Your task to perform on an android device: Show me productivity apps on the Play Store Image 0: 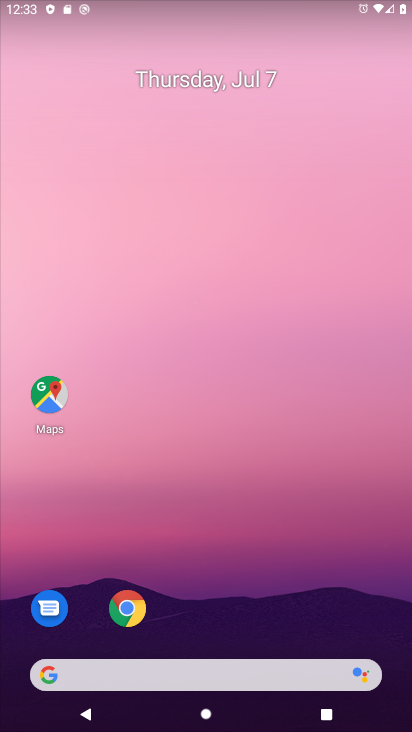
Step 0: drag from (221, 431) to (213, 35)
Your task to perform on an android device: Show me productivity apps on the Play Store Image 1: 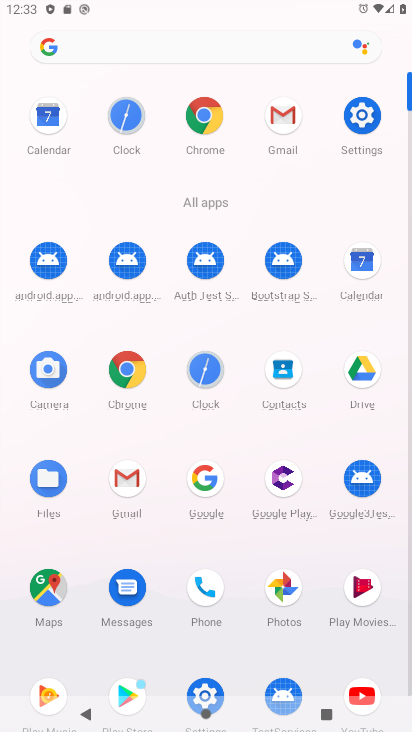
Step 1: click (133, 703)
Your task to perform on an android device: Show me productivity apps on the Play Store Image 2: 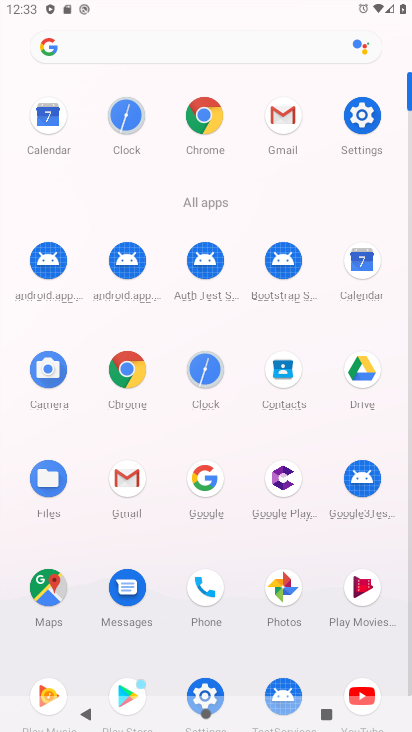
Step 2: click (125, 688)
Your task to perform on an android device: Show me productivity apps on the Play Store Image 3: 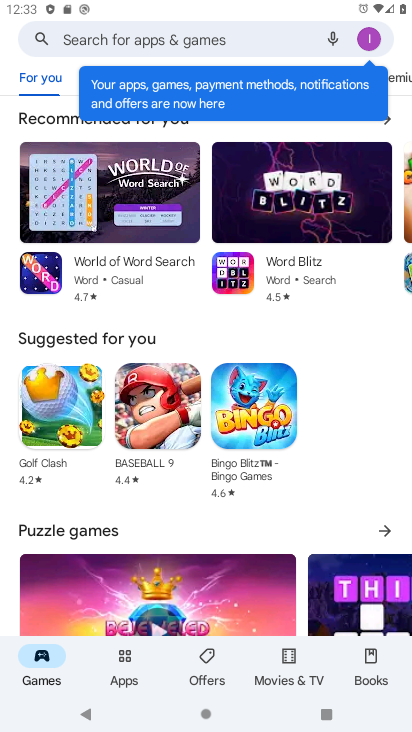
Step 3: click (120, 660)
Your task to perform on an android device: Show me productivity apps on the Play Store Image 4: 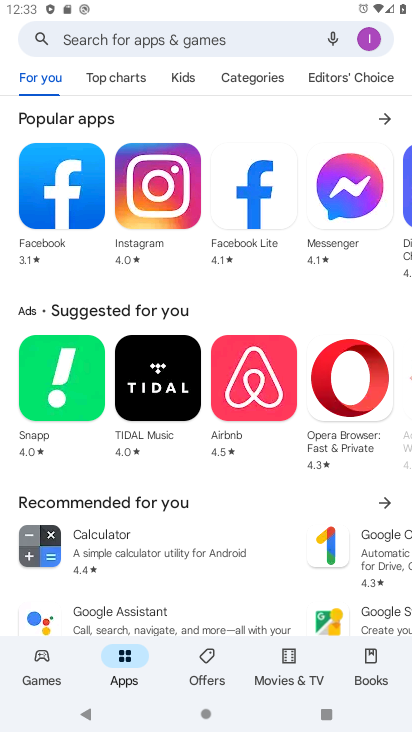
Step 4: drag from (165, 618) to (245, 95)
Your task to perform on an android device: Show me productivity apps on the Play Store Image 5: 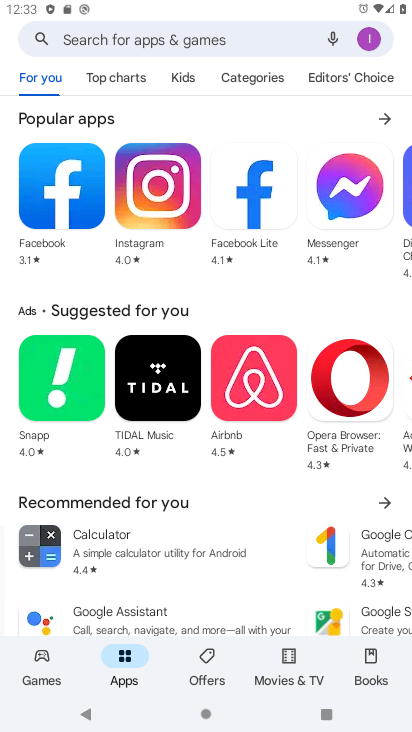
Step 5: drag from (173, 551) to (252, 71)
Your task to perform on an android device: Show me productivity apps on the Play Store Image 6: 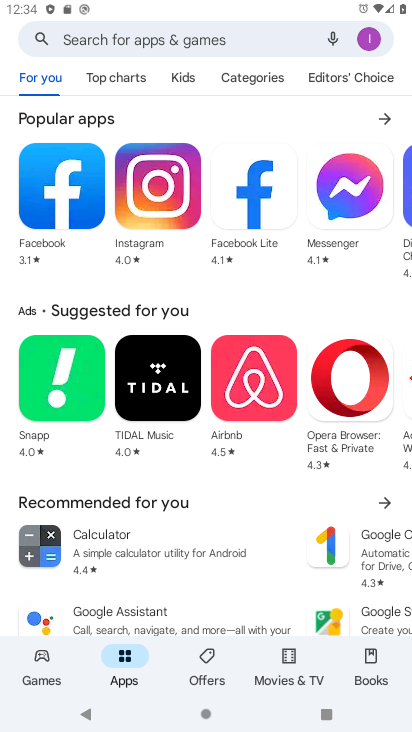
Step 6: drag from (188, 456) to (266, 6)
Your task to perform on an android device: Show me productivity apps on the Play Store Image 7: 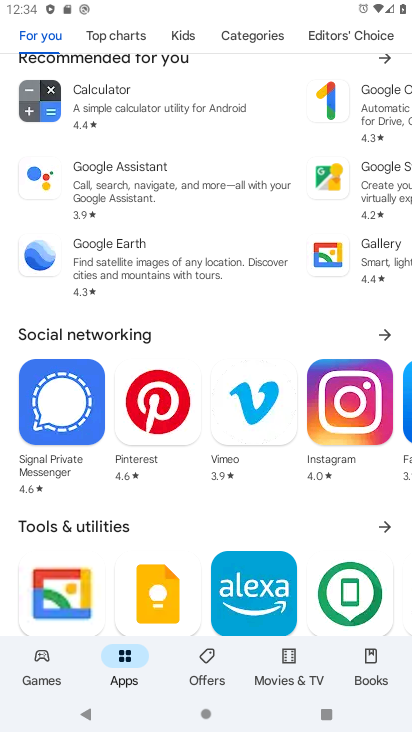
Step 7: drag from (175, 521) to (313, 12)
Your task to perform on an android device: Show me productivity apps on the Play Store Image 8: 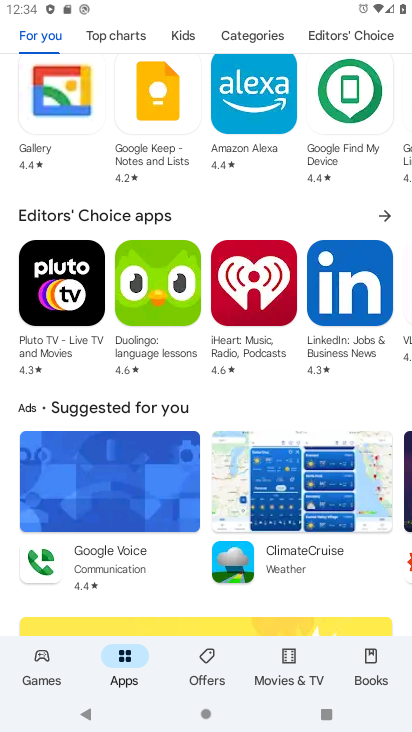
Step 8: drag from (198, 489) to (264, 80)
Your task to perform on an android device: Show me productivity apps on the Play Store Image 9: 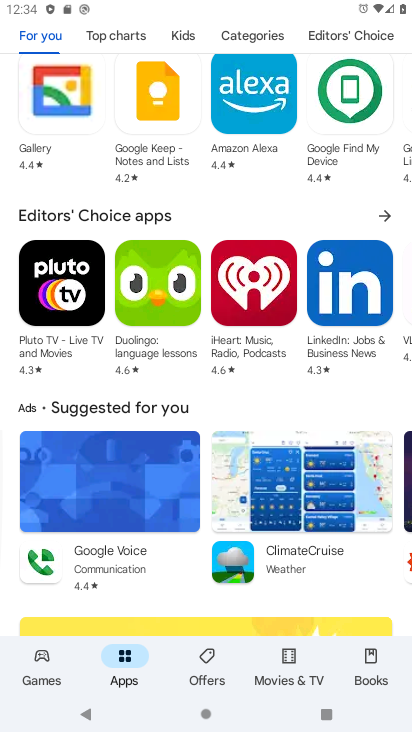
Step 9: drag from (178, 577) to (331, 49)
Your task to perform on an android device: Show me productivity apps on the Play Store Image 10: 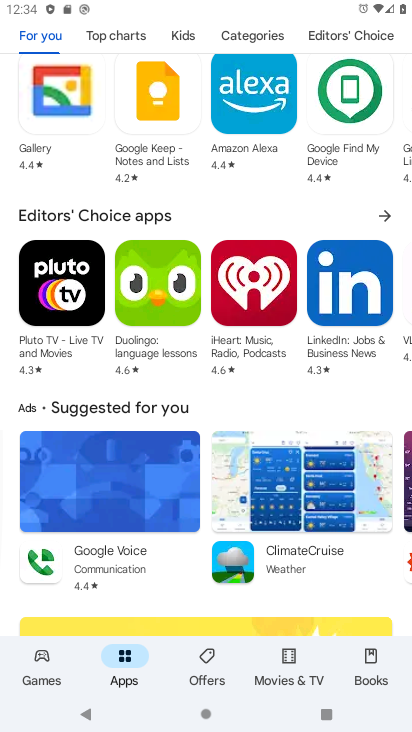
Step 10: drag from (209, 402) to (328, 3)
Your task to perform on an android device: Show me productivity apps on the Play Store Image 11: 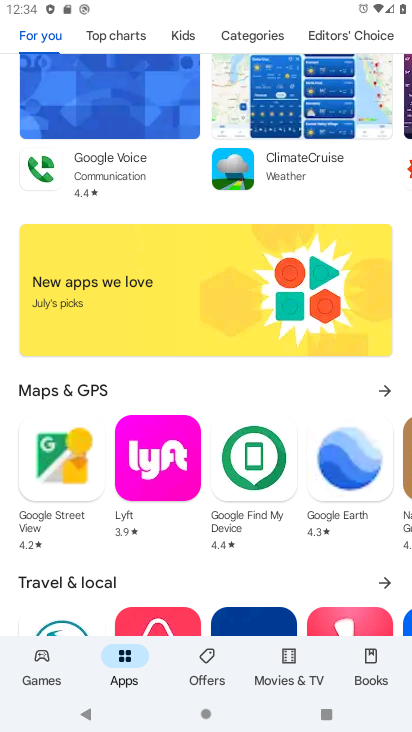
Step 11: drag from (191, 477) to (317, 0)
Your task to perform on an android device: Show me productivity apps on the Play Store Image 12: 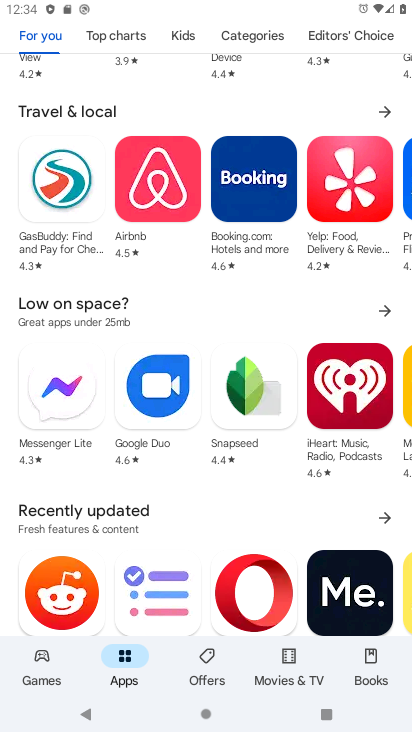
Step 12: drag from (190, 574) to (314, 63)
Your task to perform on an android device: Show me productivity apps on the Play Store Image 13: 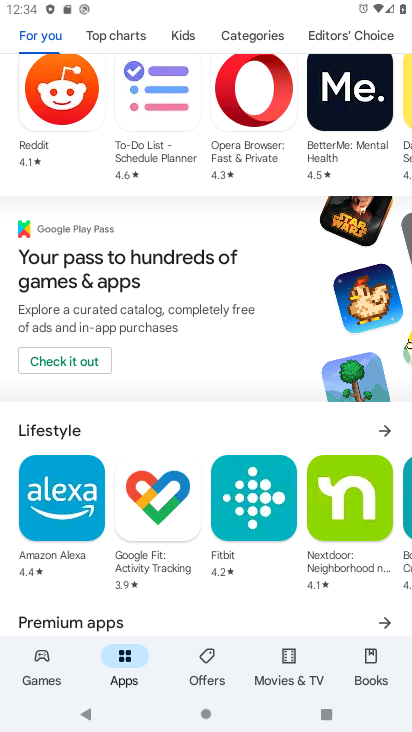
Step 13: drag from (152, 571) to (305, 23)
Your task to perform on an android device: Show me productivity apps on the Play Store Image 14: 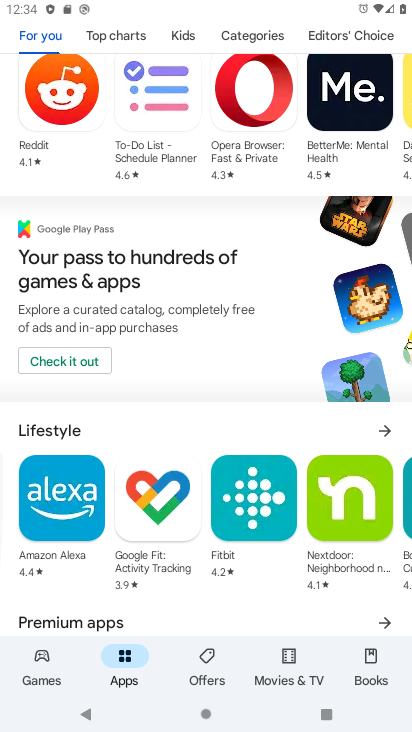
Step 14: drag from (262, 426) to (270, 11)
Your task to perform on an android device: Show me productivity apps on the Play Store Image 15: 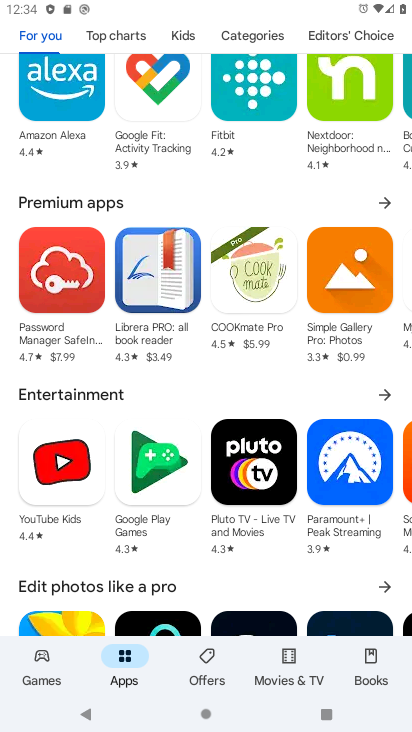
Step 15: drag from (256, 185) to (279, 83)
Your task to perform on an android device: Show me productivity apps on the Play Store Image 16: 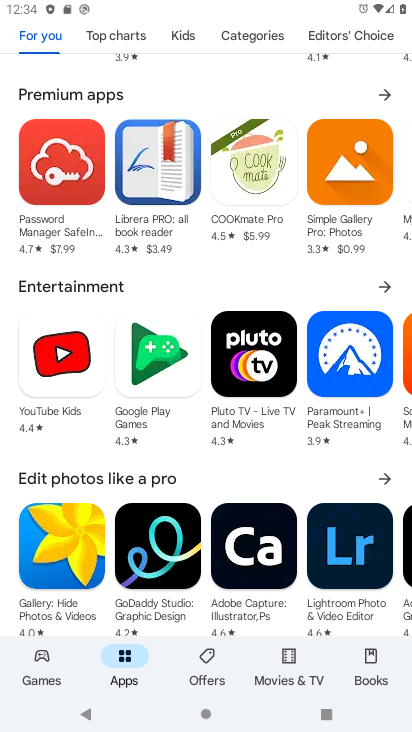
Step 16: drag from (223, 529) to (295, 13)
Your task to perform on an android device: Show me productivity apps on the Play Store Image 17: 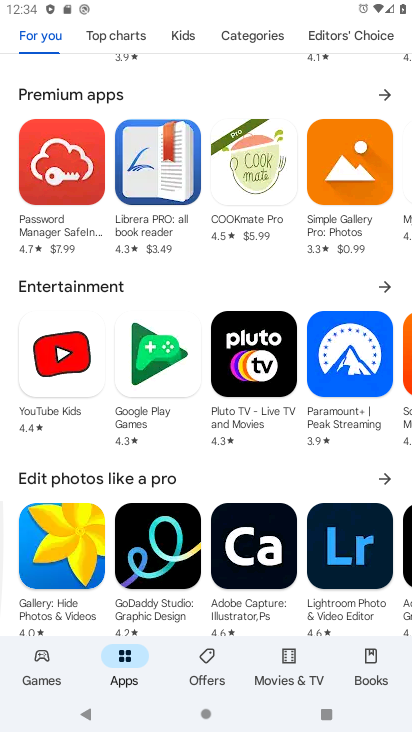
Step 17: drag from (229, 426) to (228, 48)
Your task to perform on an android device: Show me productivity apps on the Play Store Image 18: 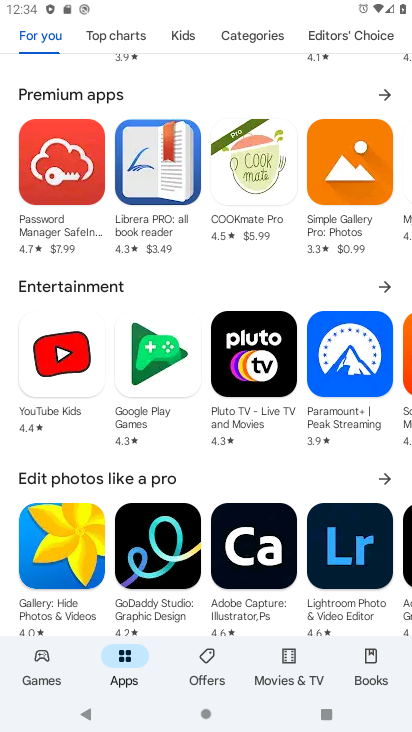
Step 18: drag from (176, 543) to (246, 77)
Your task to perform on an android device: Show me productivity apps on the Play Store Image 19: 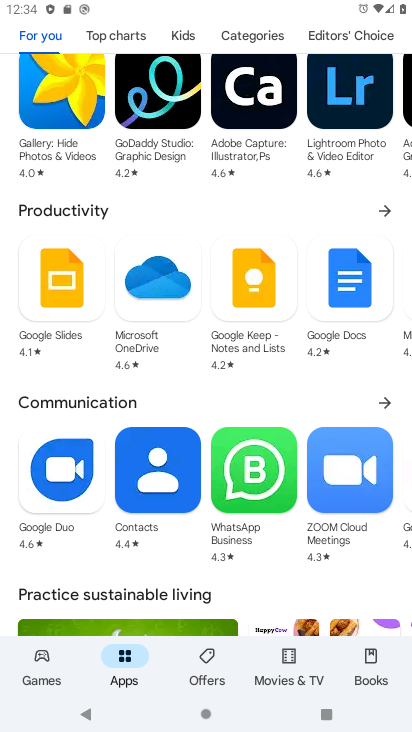
Step 19: click (387, 210)
Your task to perform on an android device: Show me productivity apps on the Play Store Image 20: 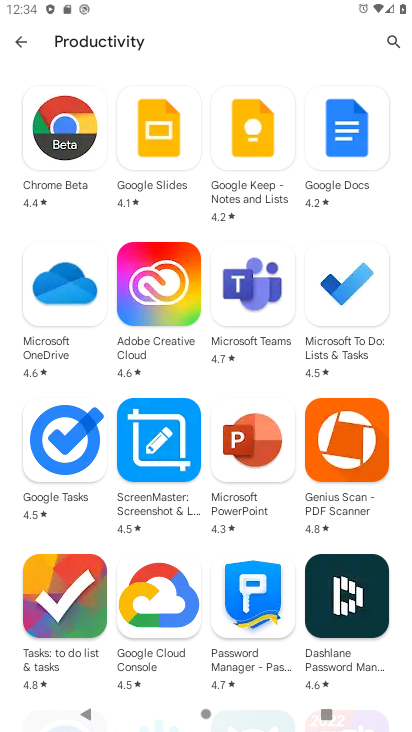
Step 20: task complete